Your task to perform on an android device: Open calendar and show me the fourth week of next month Image 0: 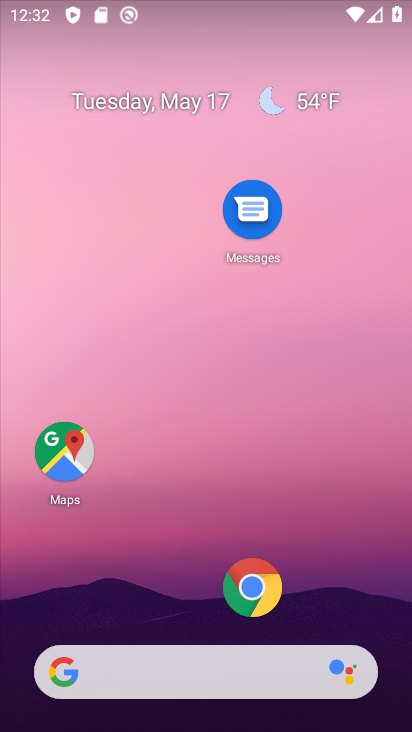
Step 0: drag from (151, 602) to (238, 63)
Your task to perform on an android device: Open calendar and show me the fourth week of next month Image 1: 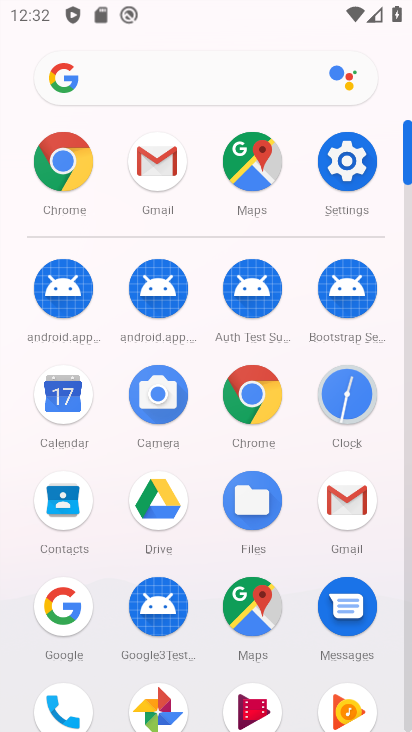
Step 1: click (63, 414)
Your task to perform on an android device: Open calendar and show me the fourth week of next month Image 2: 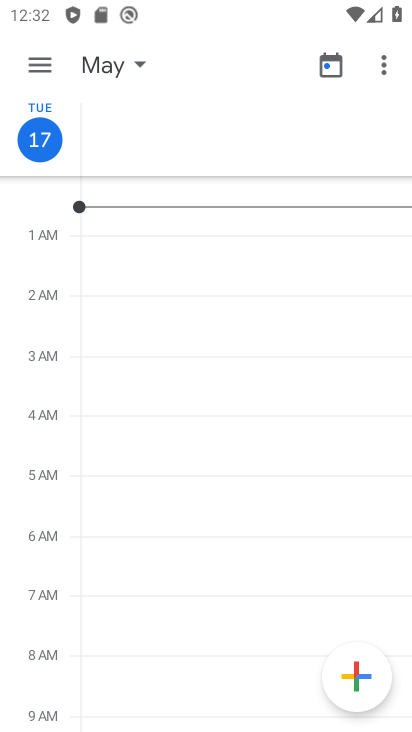
Step 2: click (53, 67)
Your task to perform on an android device: Open calendar and show me the fourth week of next month Image 3: 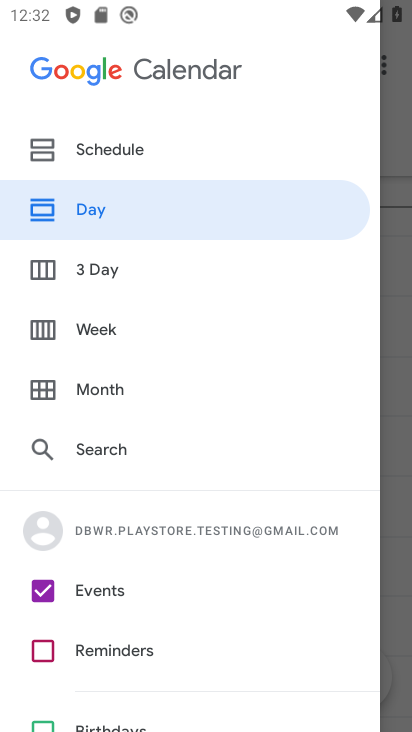
Step 3: click (109, 328)
Your task to perform on an android device: Open calendar and show me the fourth week of next month Image 4: 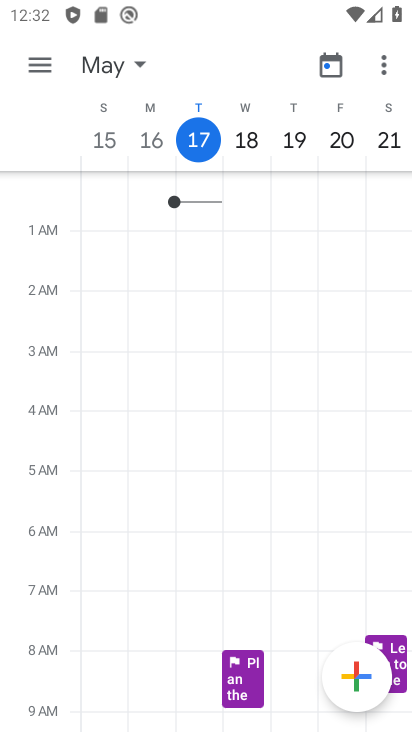
Step 4: task complete